Your task to perform on an android device: Add "logitech g pro" to the cart on newegg, then select checkout. Image 0: 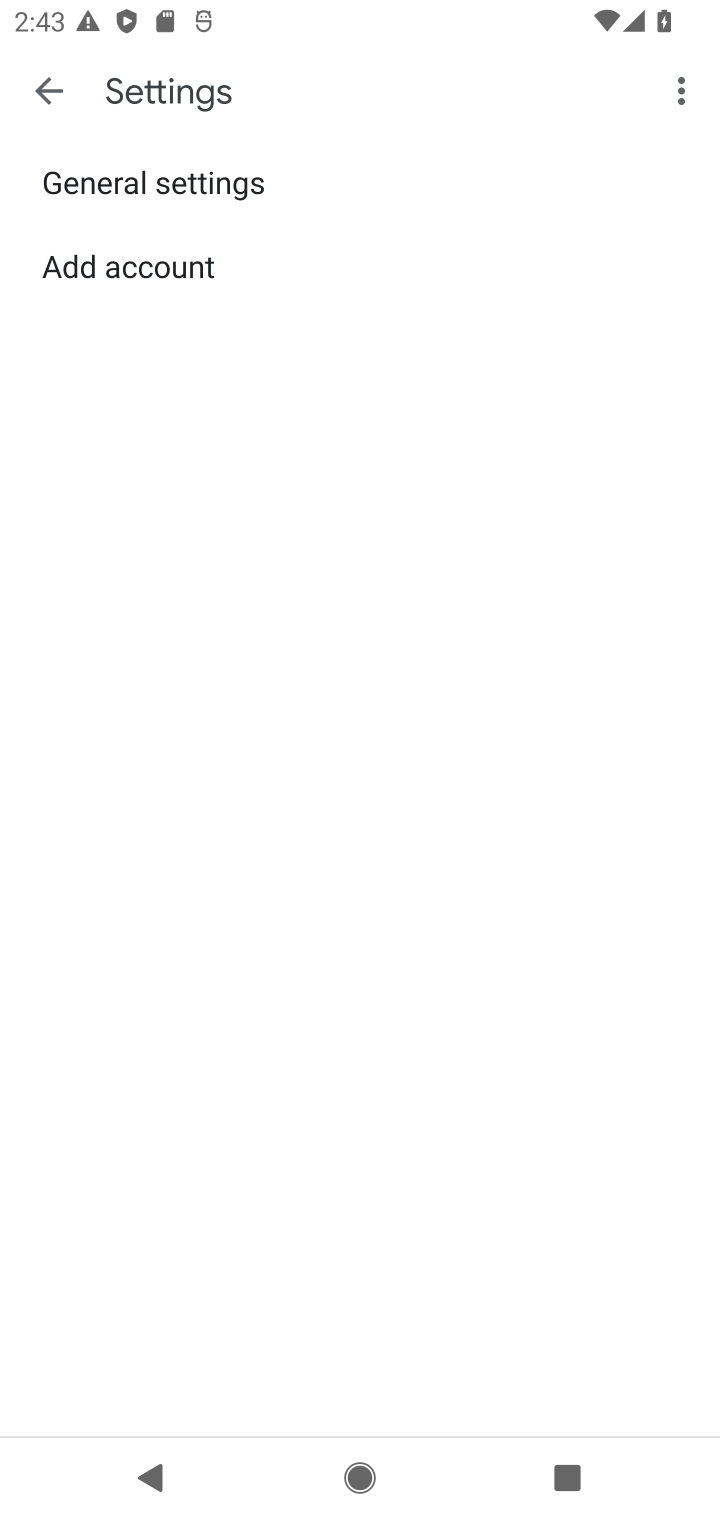
Step 0: click (41, 93)
Your task to perform on an android device: Add "logitech g pro" to the cart on newegg, then select checkout. Image 1: 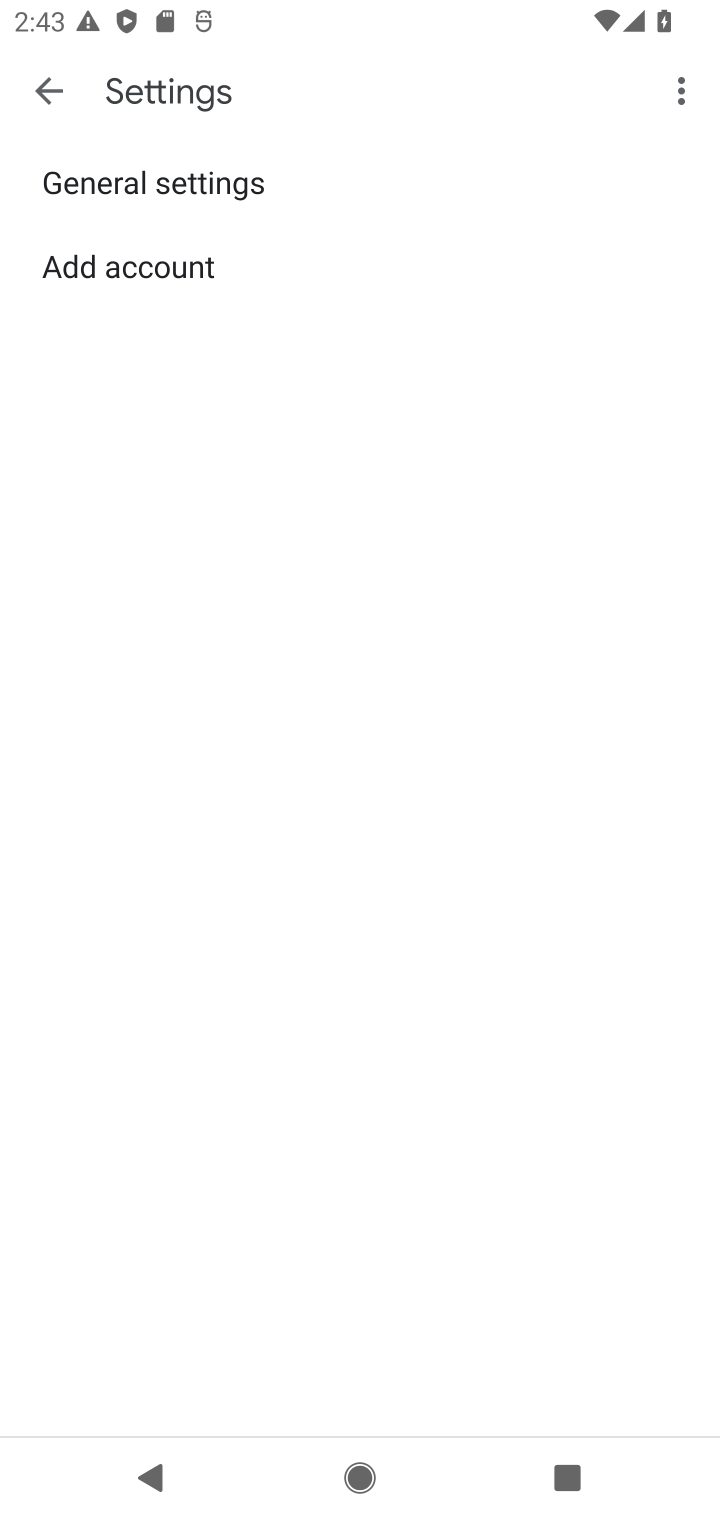
Step 1: press home button
Your task to perform on an android device: Add "logitech g pro" to the cart on newegg, then select checkout. Image 2: 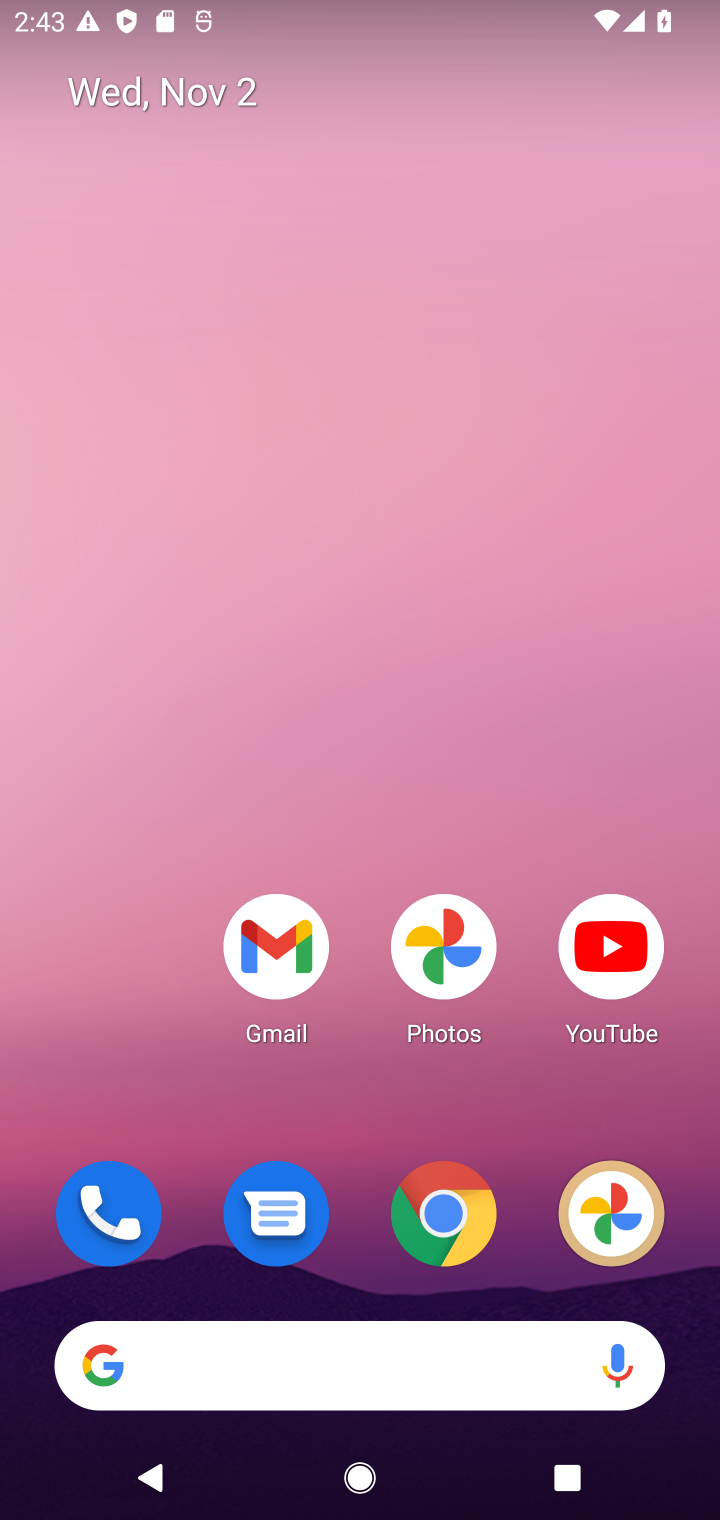
Step 2: click (443, 1237)
Your task to perform on an android device: Add "logitech g pro" to the cart on newegg, then select checkout. Image 3: 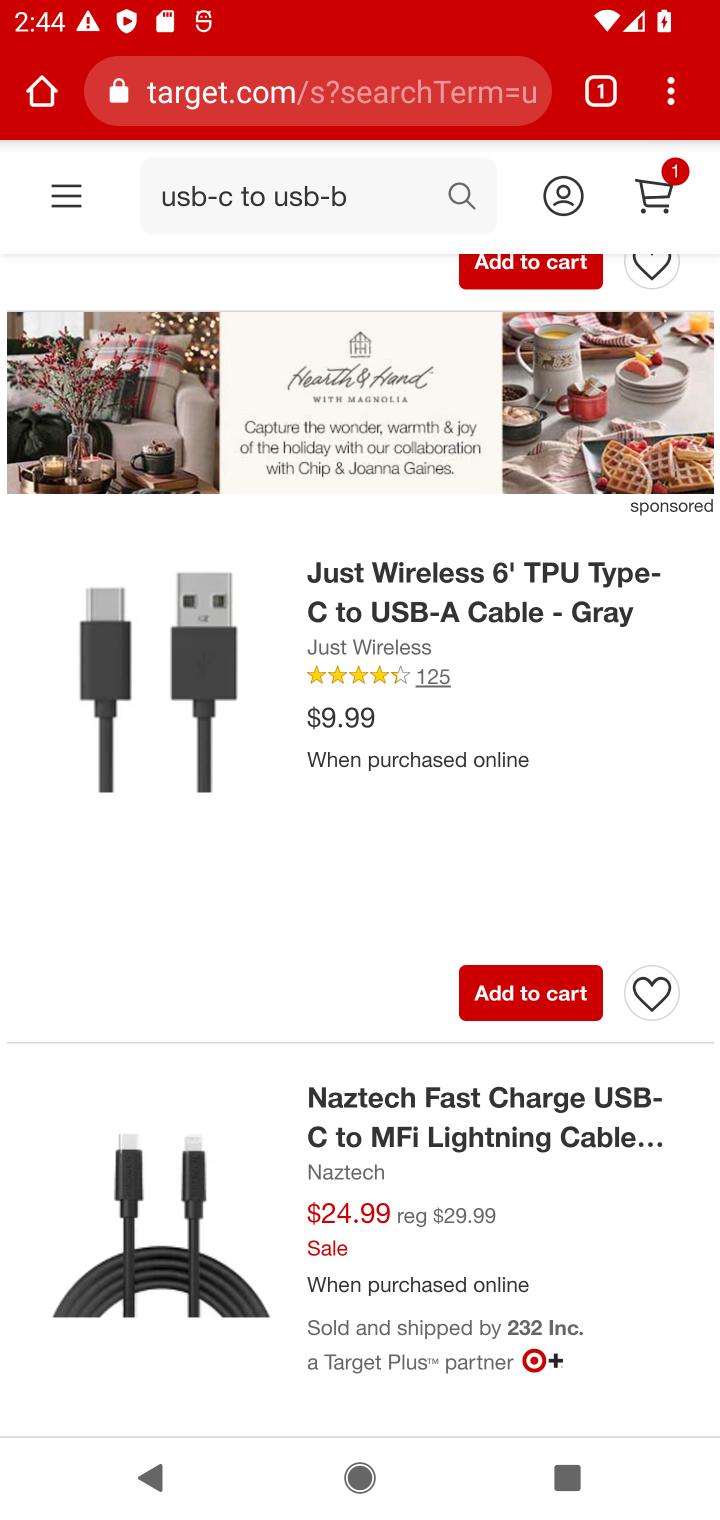
Step 3: click (373, 95)
Your task to perform on an android device: Add "logitech g pro" to the cart on newegg, then select checkout. Image 4: 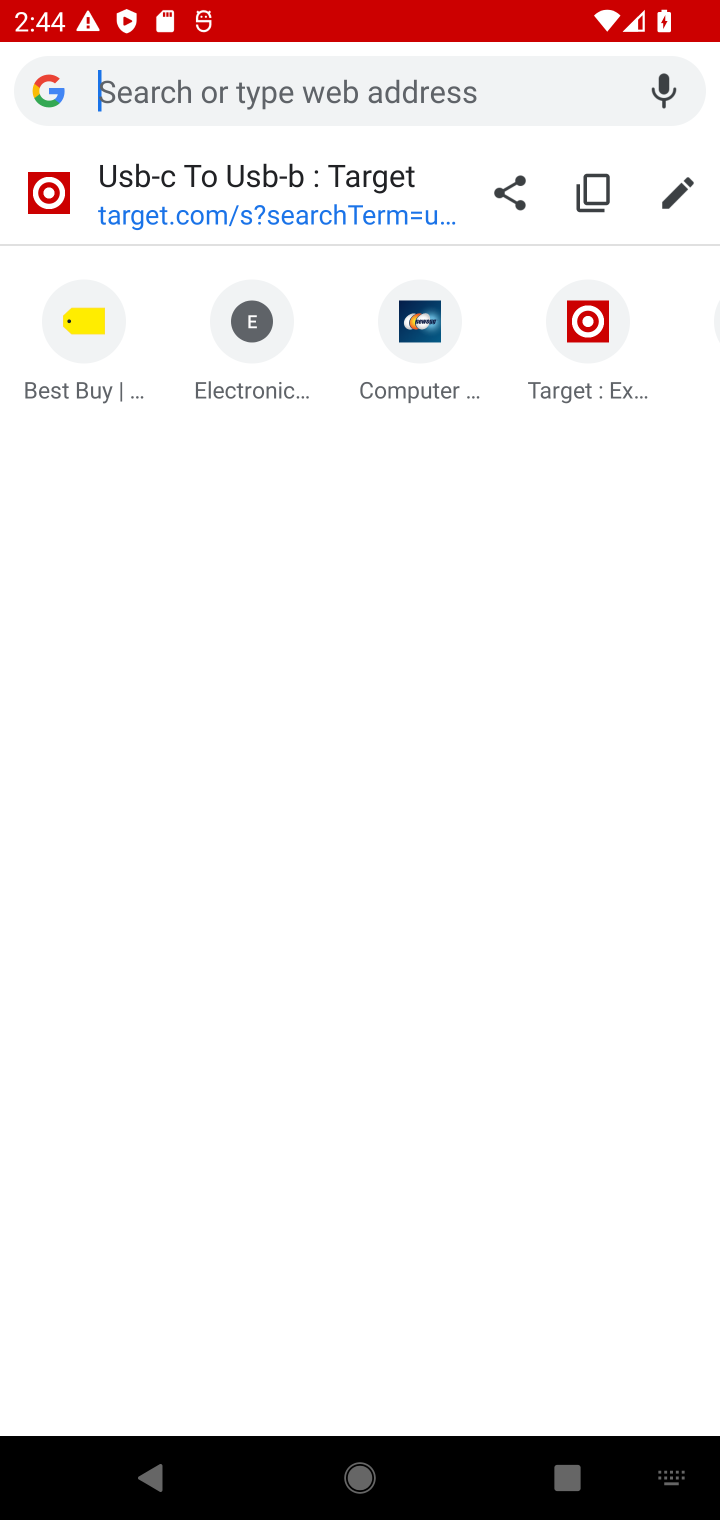
Step 4: type "newegg"
Your task to perform on an android device: Add "logitech g pro" to the cart on newegg, then select checkout. Image 5: 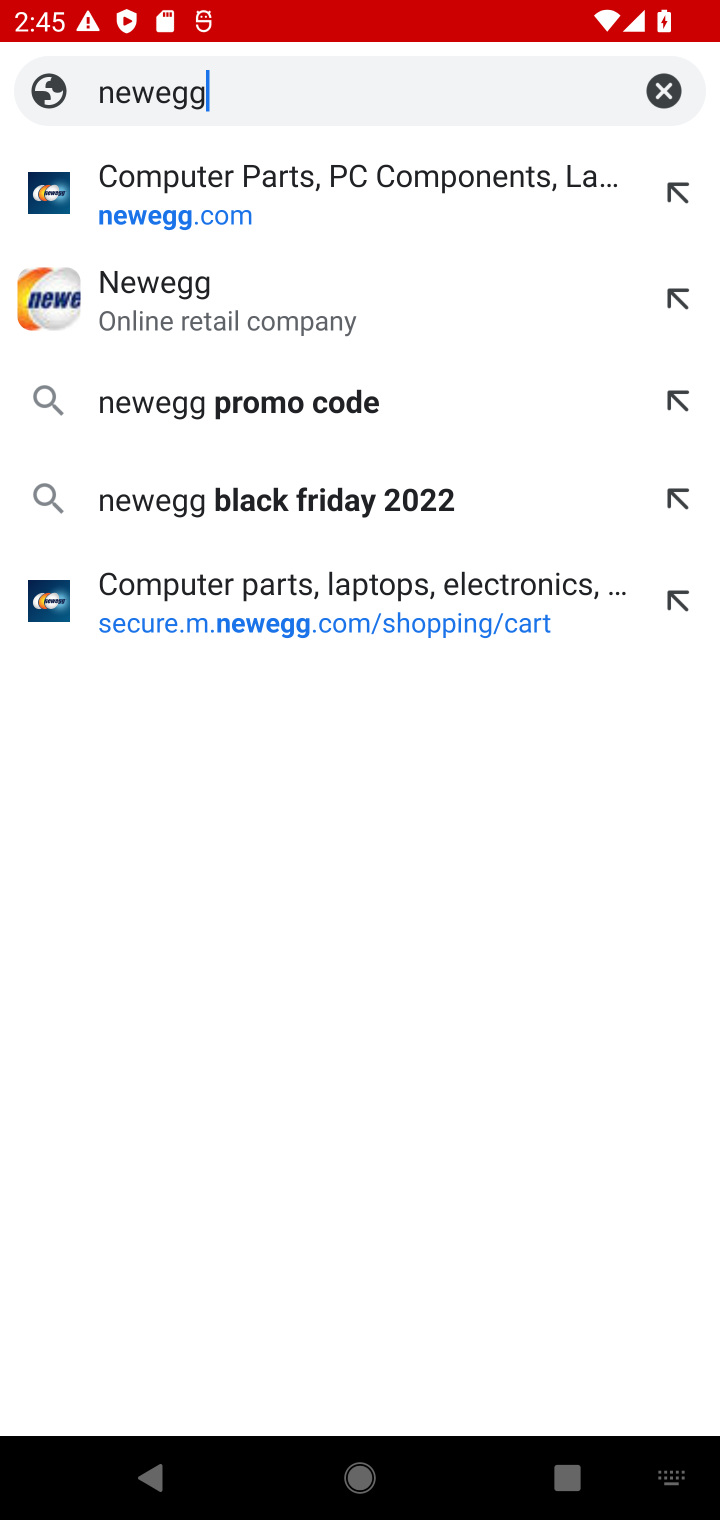
Step 5: press enter
Your task to perform on an android device: Add "logitech g pro" to the cart on newegg, then select checkout. Image 6: 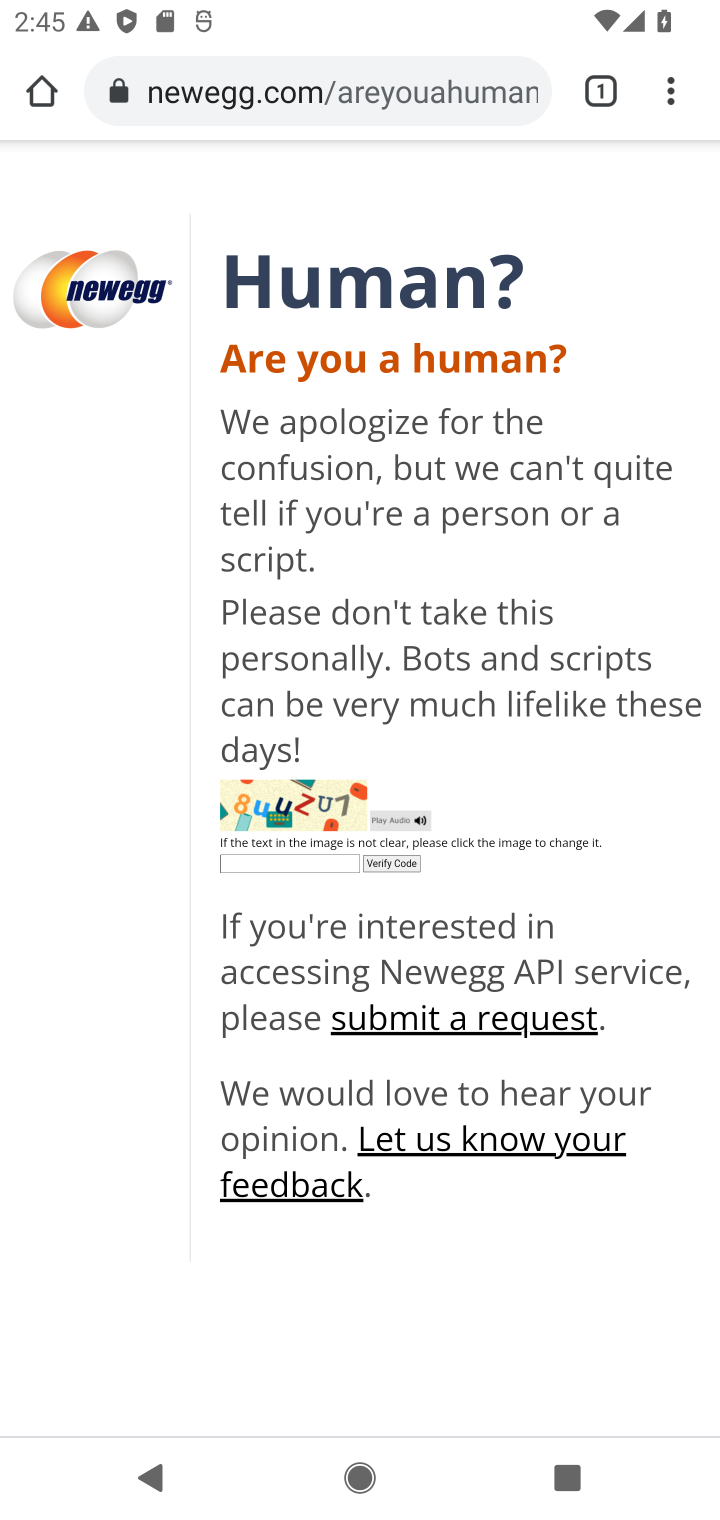
Step 6: click (304, 855)
Your task to perform on an android device: Add "logitech g pro" to the cart on newegg, then select checkout. Image 7: 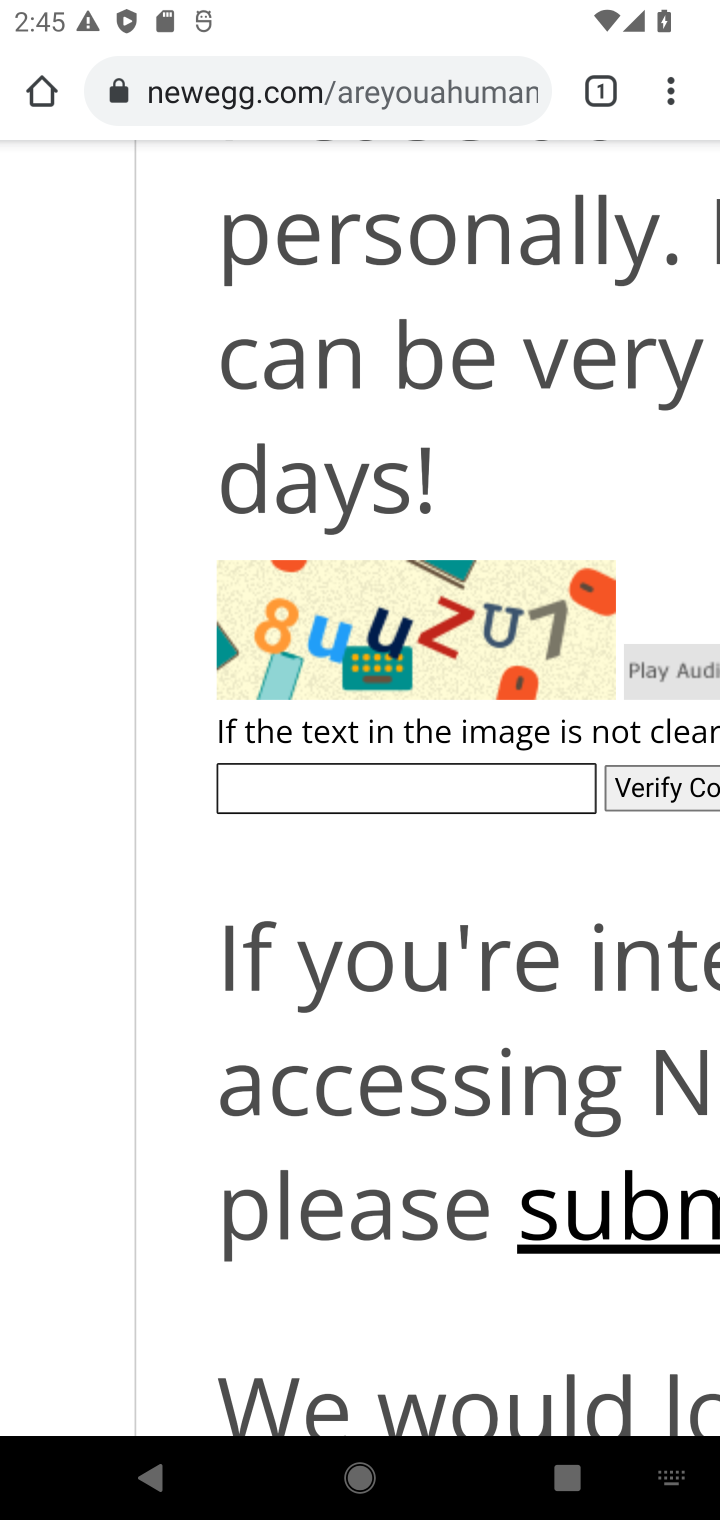
Step 7: type "8uuZu1"
Your task to perform on an android device: Add "logitech g pro" to the cart on newegg, then select checkout. Image 8: 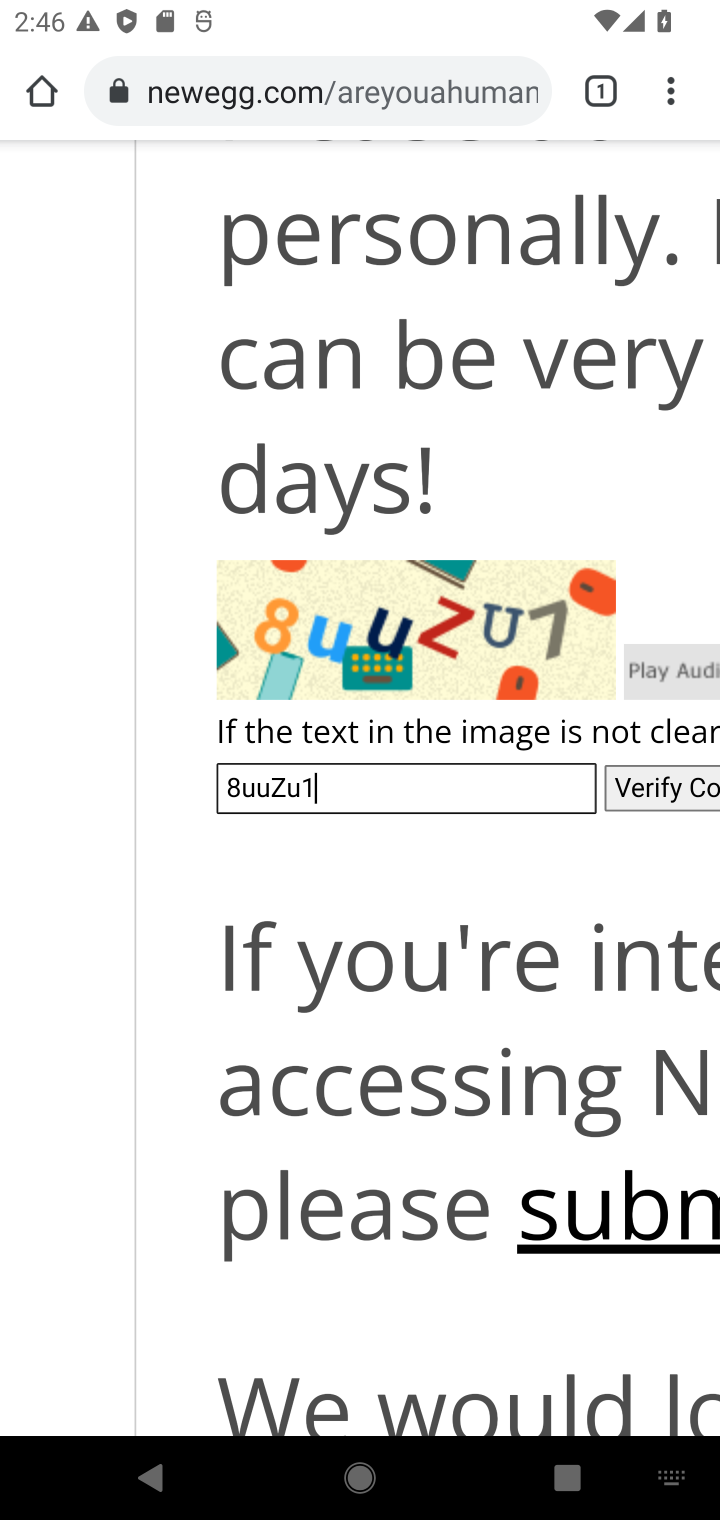
Step 8: press enter
Your task to perform on an android device: Add "logitech g pro" to the cart on newegg, then select checkout. Image 9: 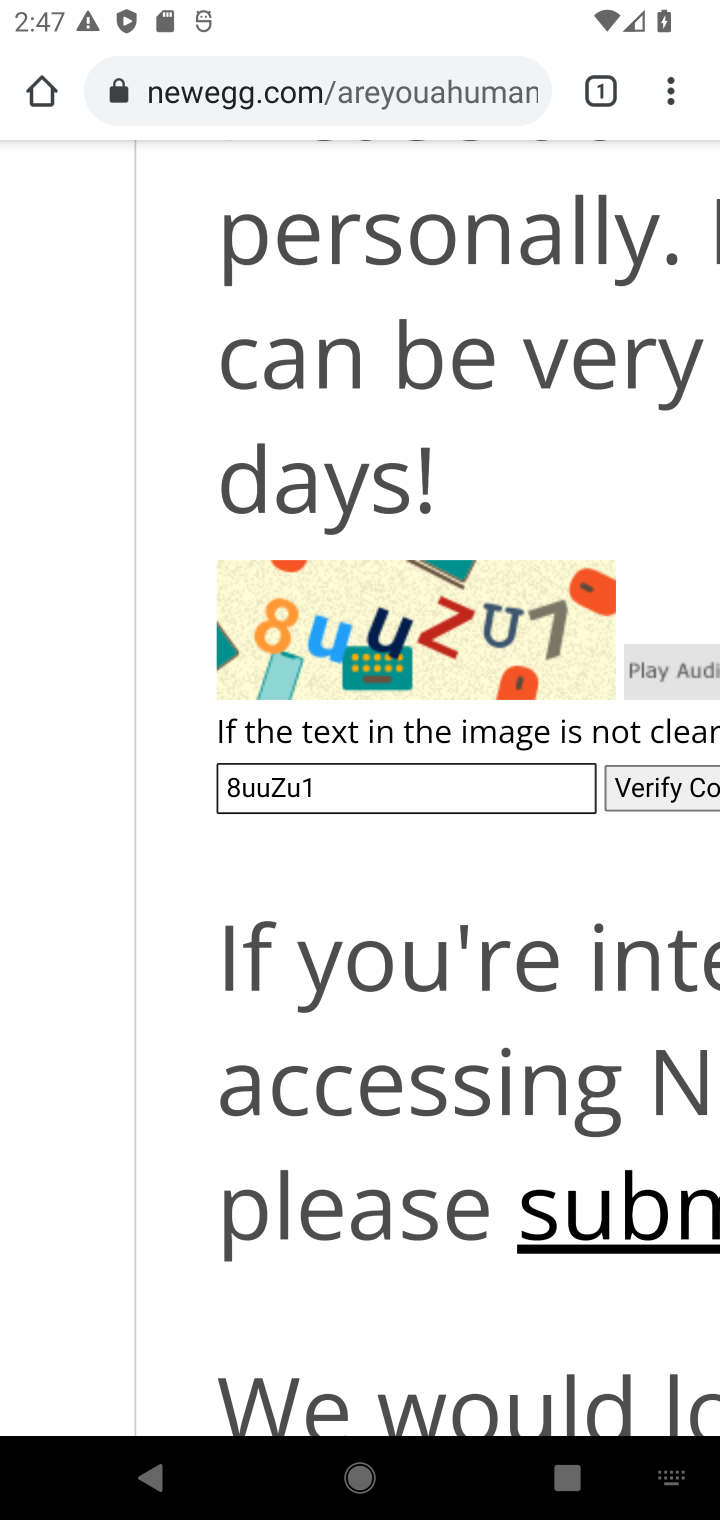
Step 9: click (657, 786)
Your task to perform on an android device: Add "logitech g pro" to the cart on newegg, then select checkout. Image 10: 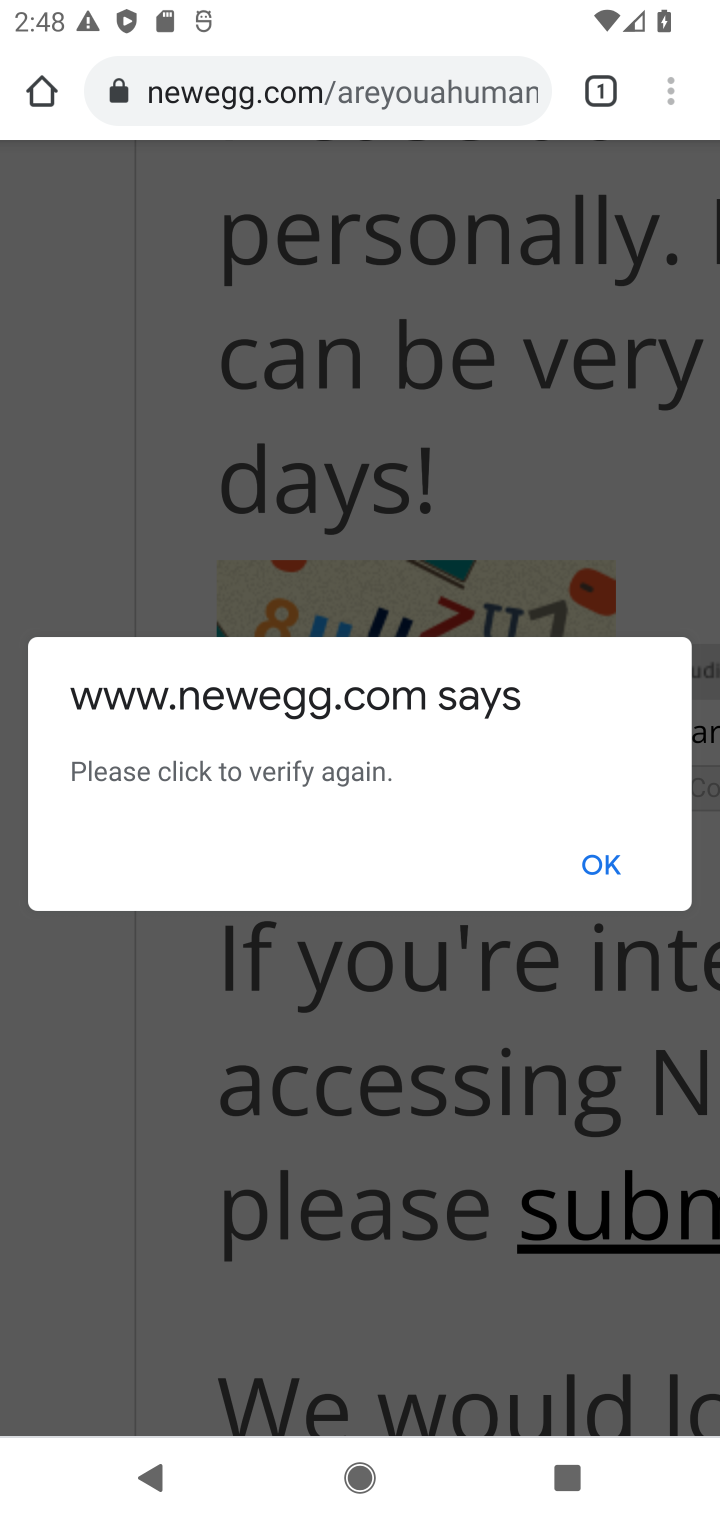
Step 10: click (609, 872)
Your task to perform on an android device: Add "logitech g pro" to the cart on newegg, then select checkout. Image 11: 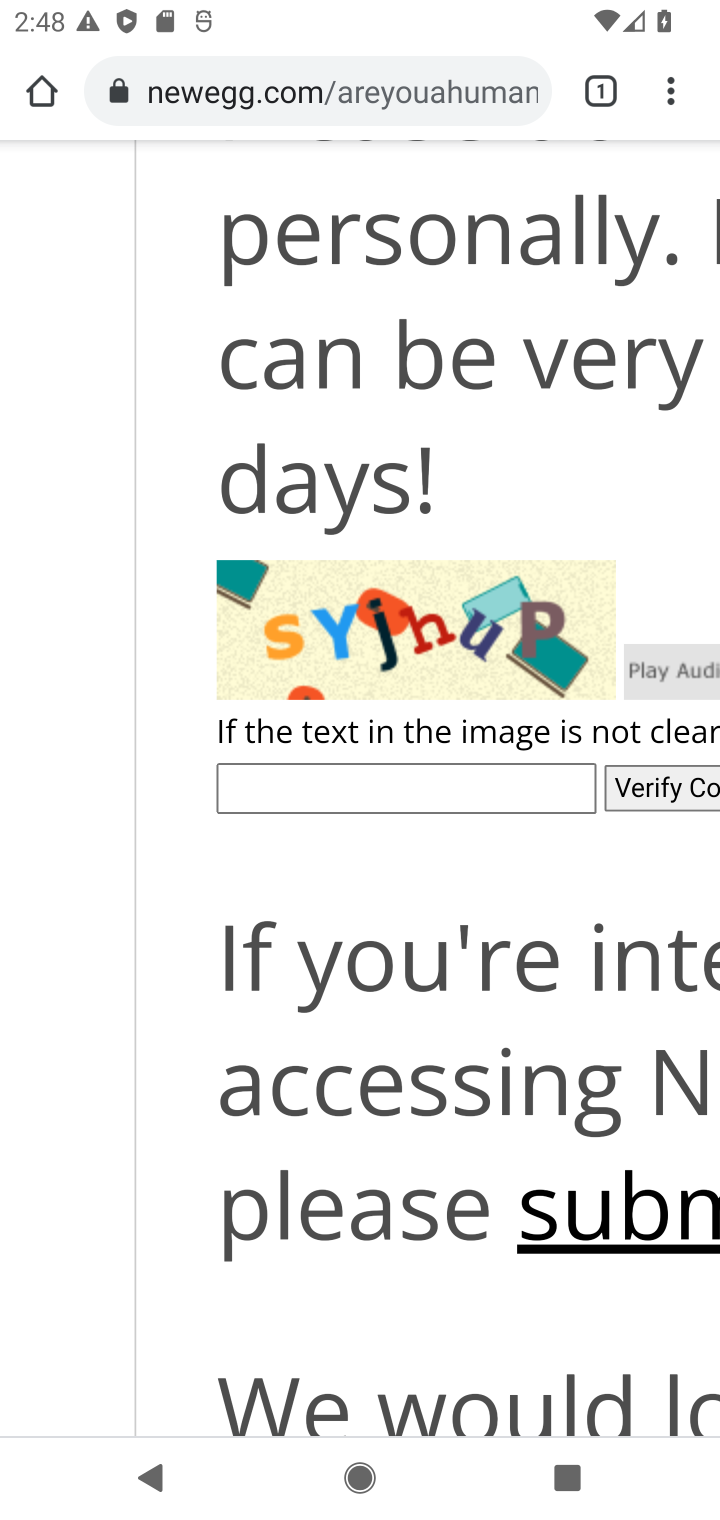
Step 11: click (399, 786)
Your task to perform on an android device: Add "logitech g pro" to the cart on newegg, then select checkout. Image 12: 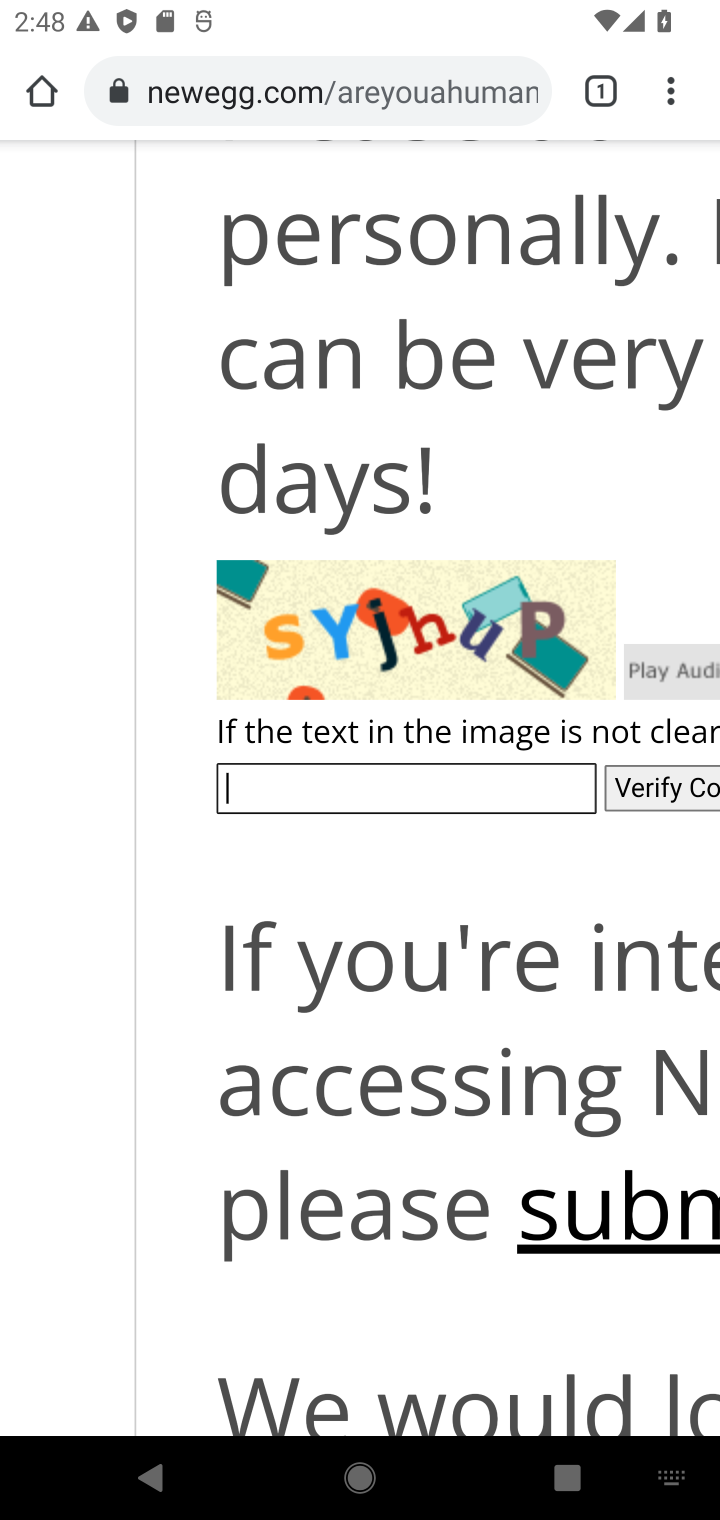
Step 12: type "SYjhuP"
Your task to perform on an android device: Add "logitech g pro" to the cart on newegg, then select checkout. Image 13: 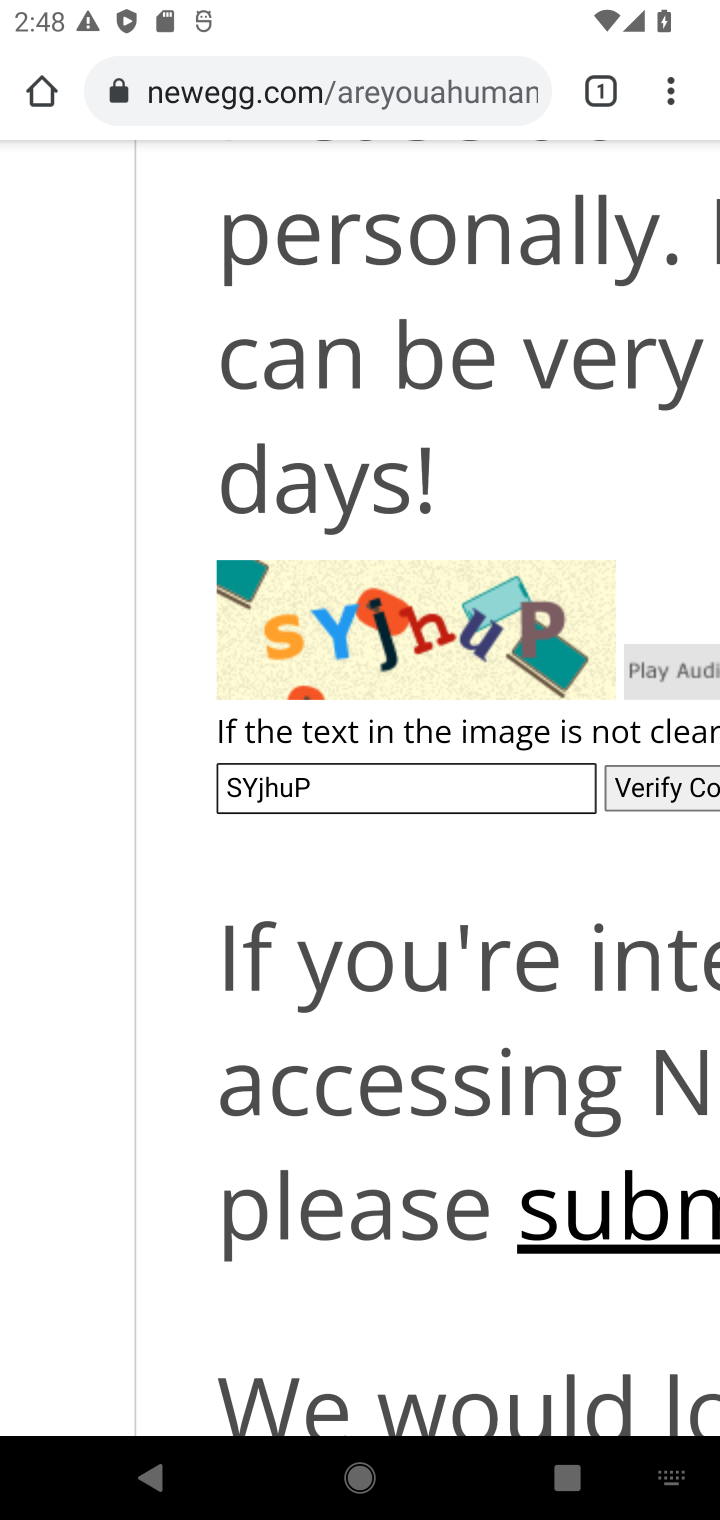
Step 13: click (656, 786)
Your task to perform on an android device: Add "logitech g pro" to the cart on newegg, then select checkout. Image 14: 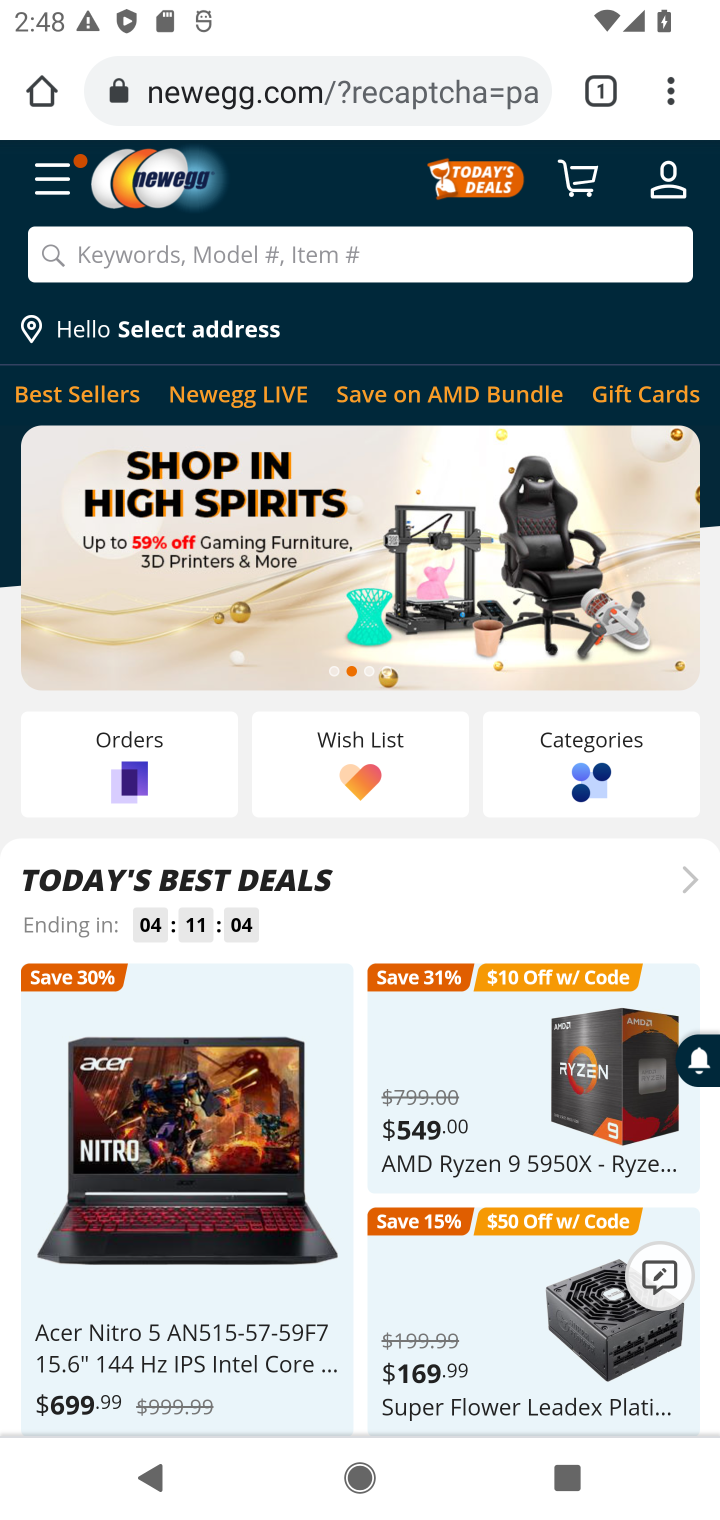
Step 14: click (435, 250)
Your task to perform on an android device: Add "logitech g pro" to the cart on newegg, then select checkout. Image 15: 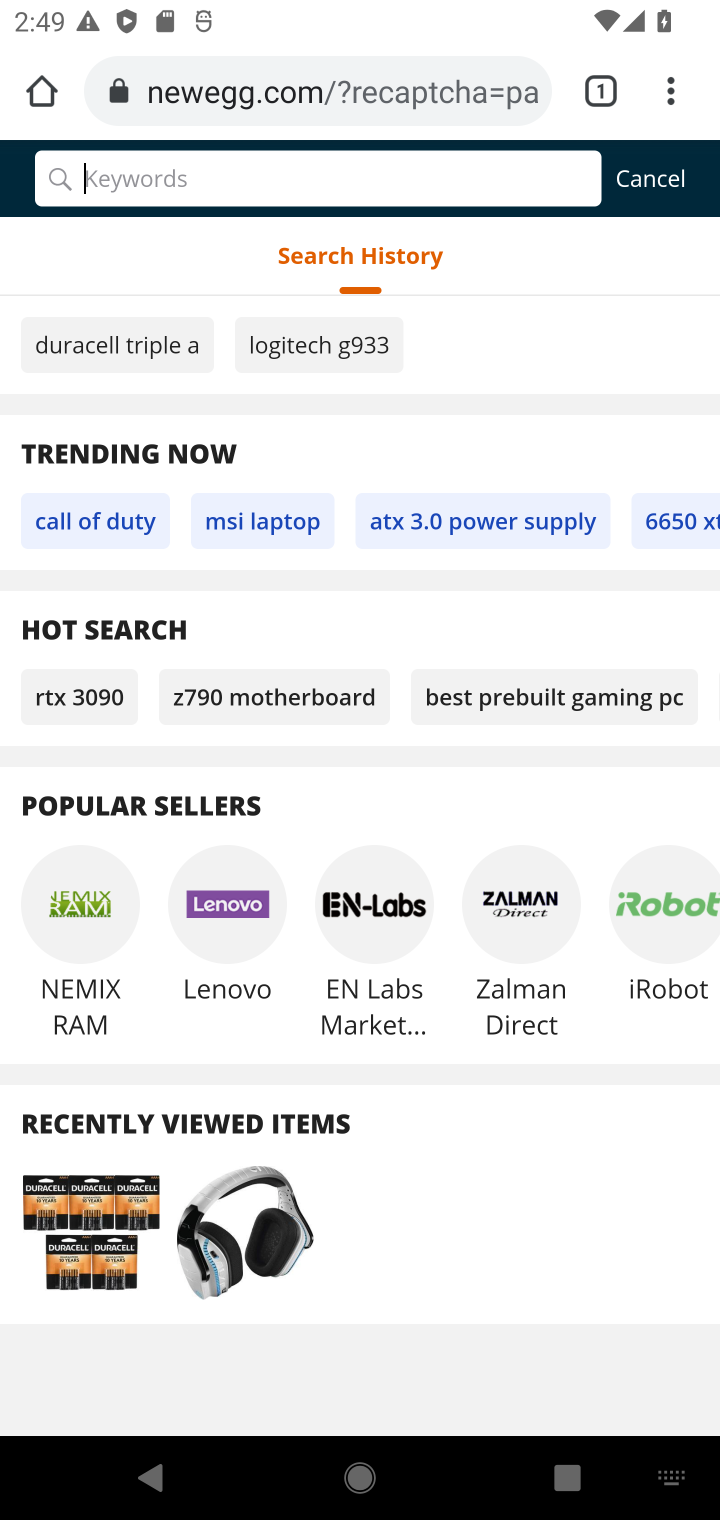
Step 15: type "logitech g pro"
Your task to perform on an android device: Add "logitech g pro" to the cart on newegg, then select checkout. Image 16: 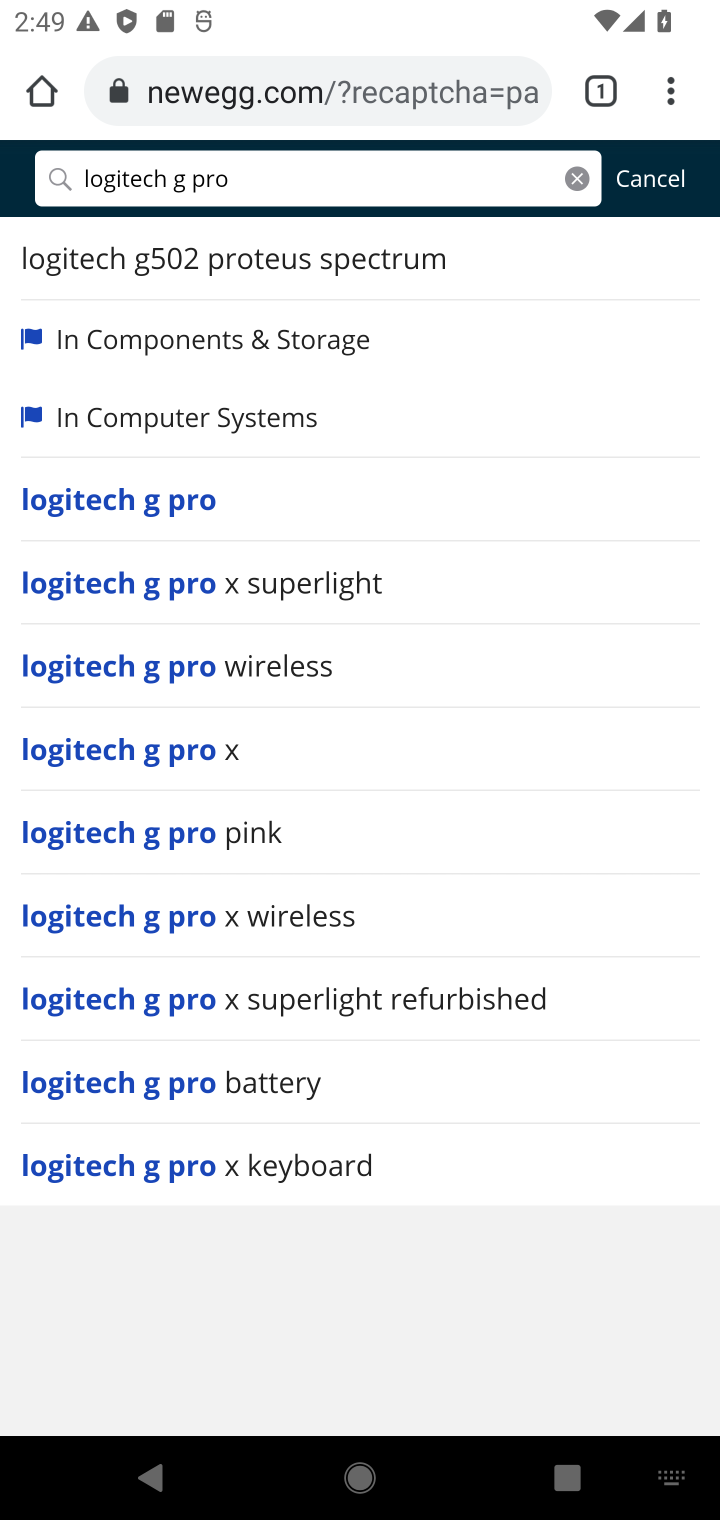
Step 16: press enter
Your task to perform on an android device: Add "logitech g pro" to the cart on newegg, then select checkout. Image 17: 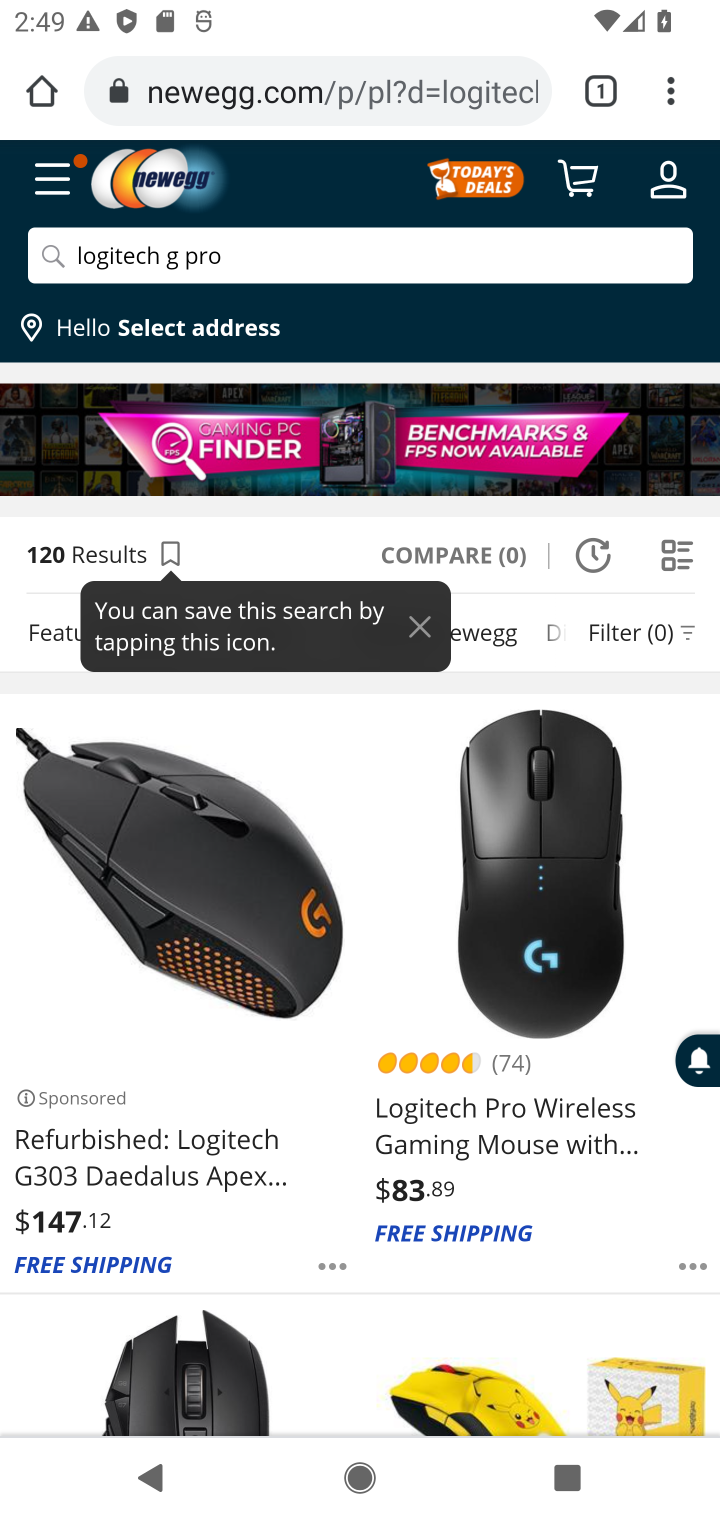
Step 17: drag from (415, 1277) to (384, 858)
Your task to perform on an android device: Add "logitech g pro" to the cart on newegg, then select checkout. Image 18: 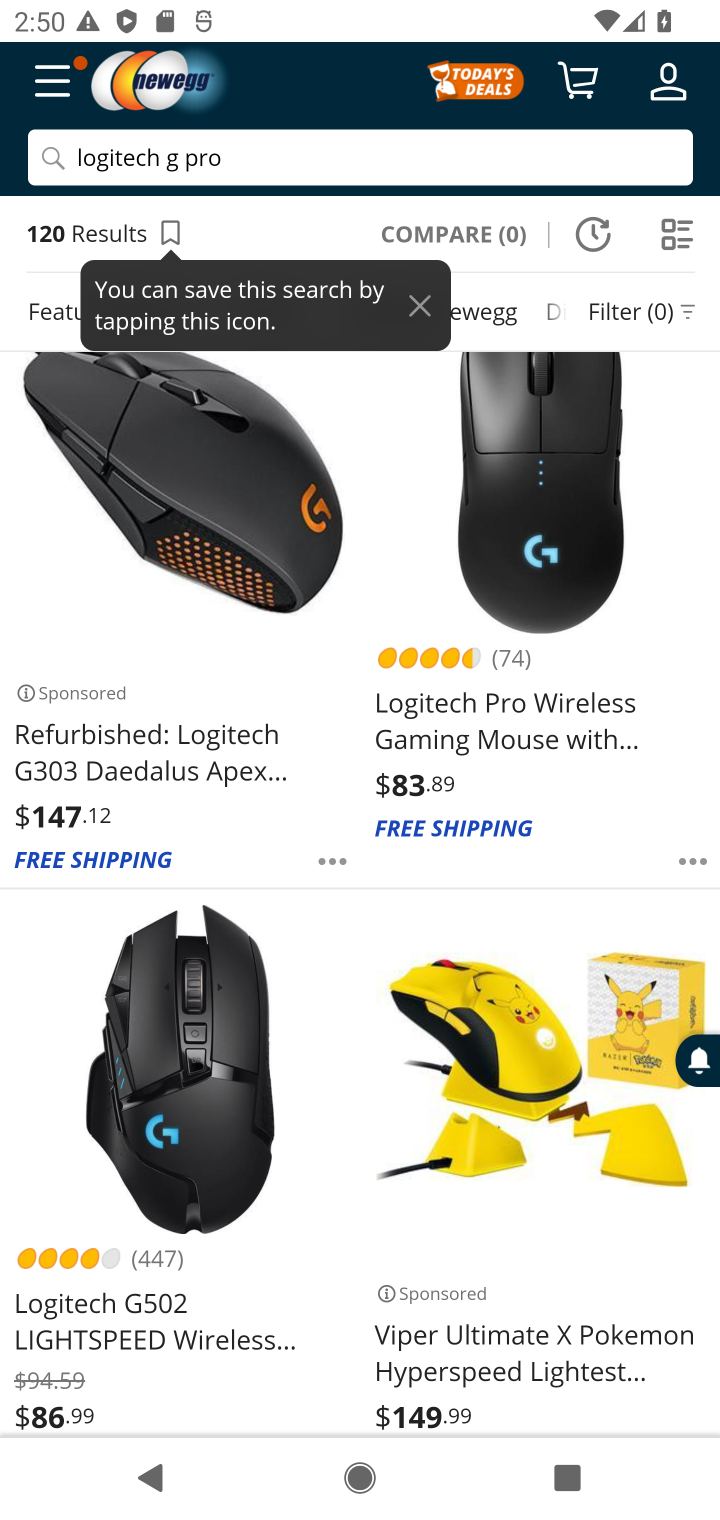
Step 18: click (537, 566)
Your task to perform on an android device: Add "logitech g pro" to the cart on newegg, then select checkout. Image 19: 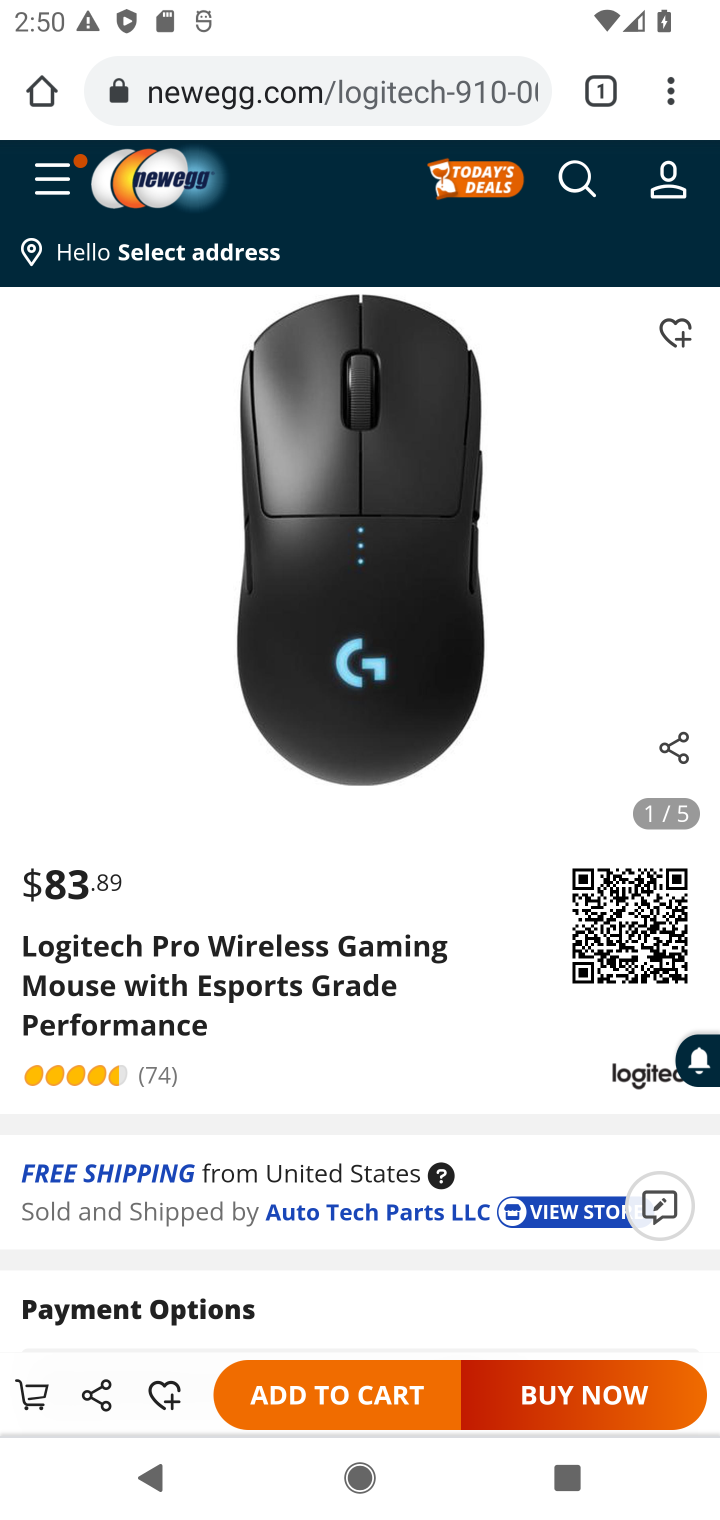
Step 19: click (333, 1403)
Your task to perform on an android device: Add "logitech g pro" to the cart on newegg, then select checkout. Image 20: 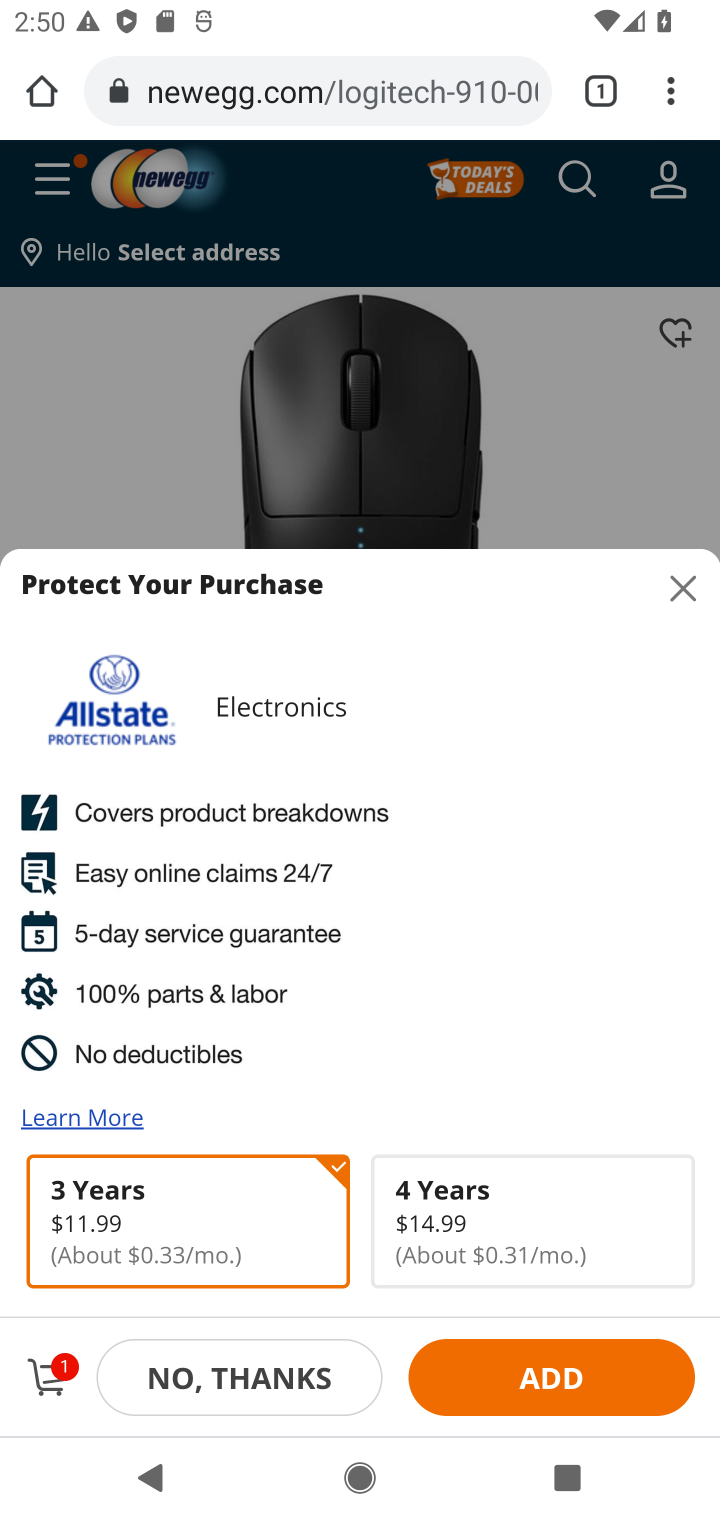
Step 20: click (267, 1385)
Your task to perform on an android device: Add "logitech g pro" to the cart on newegg, then select checkout. Image 21: 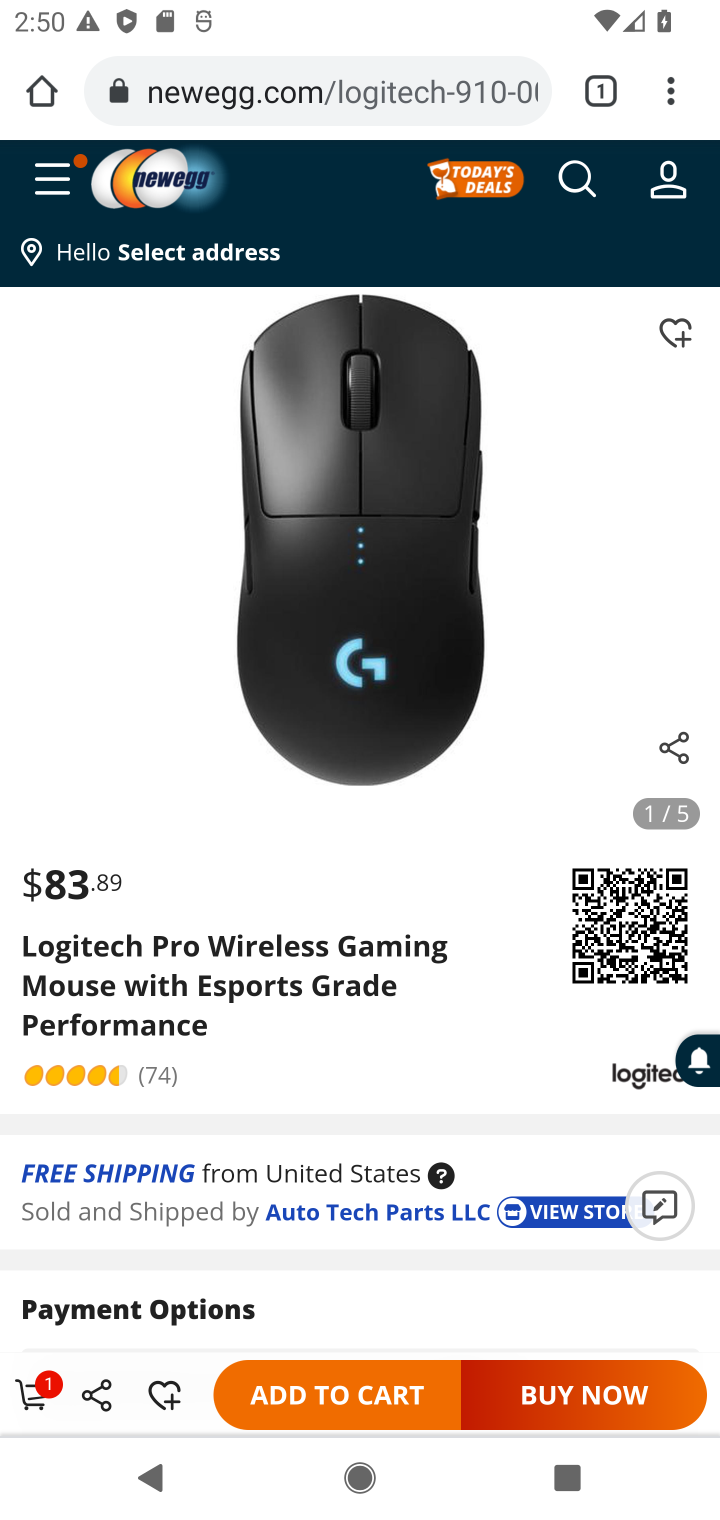
Step 21: click (37, 1387)
Your task to perform on an android device: Add "logitech g pro" to the cart on newegg, then select checkout. Image 22: 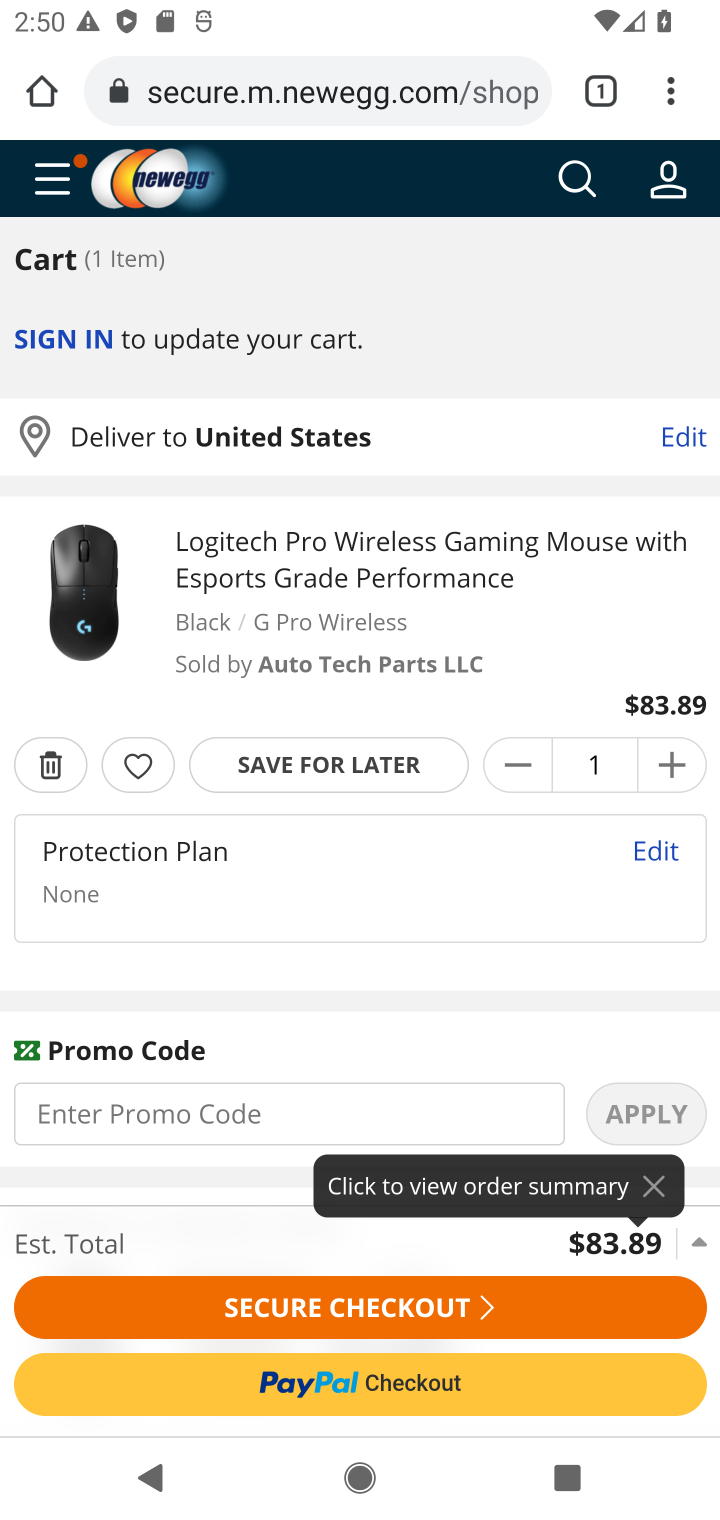
Step 22: click (355, 1319)
Your task to perform on an android device: Add "logitech g pro" to the cart on newegg, then select checkout. Image 23: 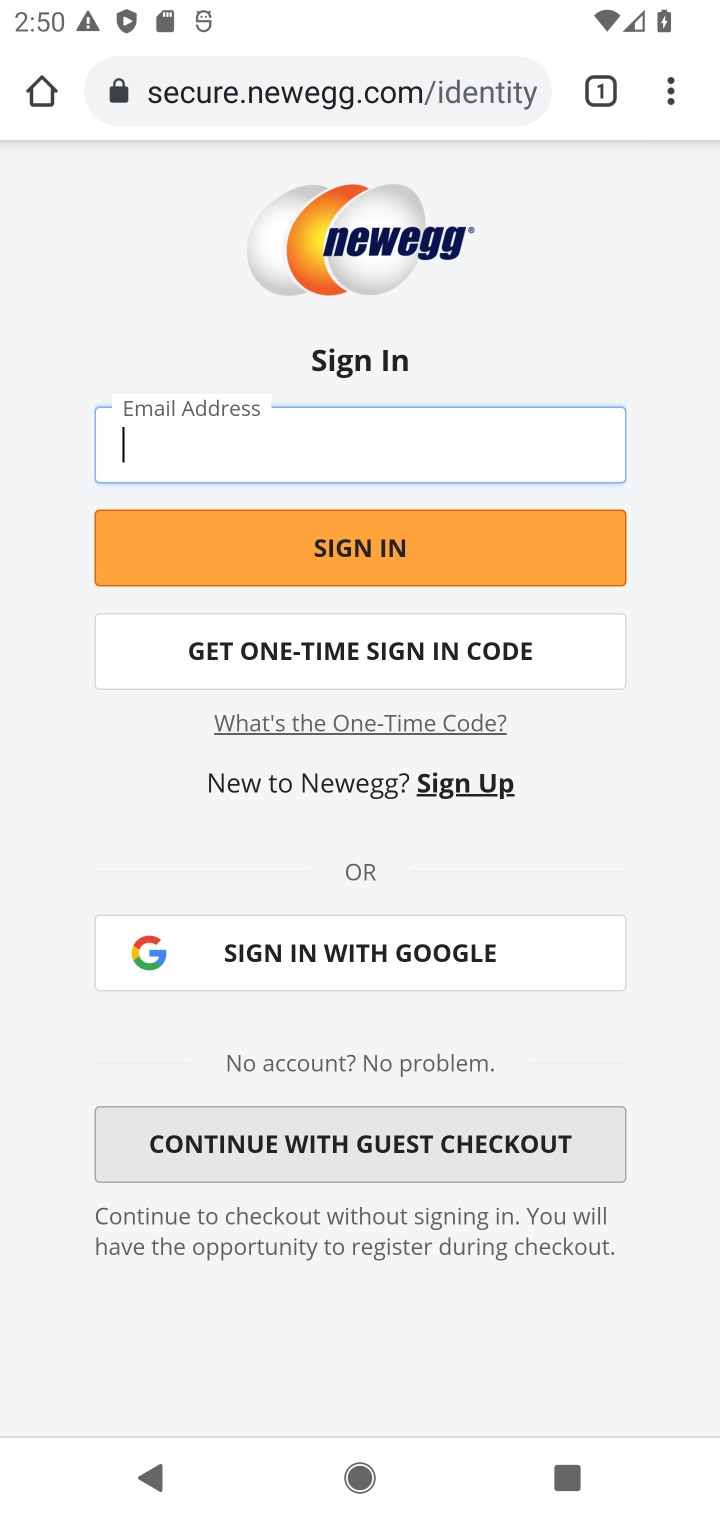
Step 23: task complete